Your task to perform on an android device: When is my next appointment? Image 0: 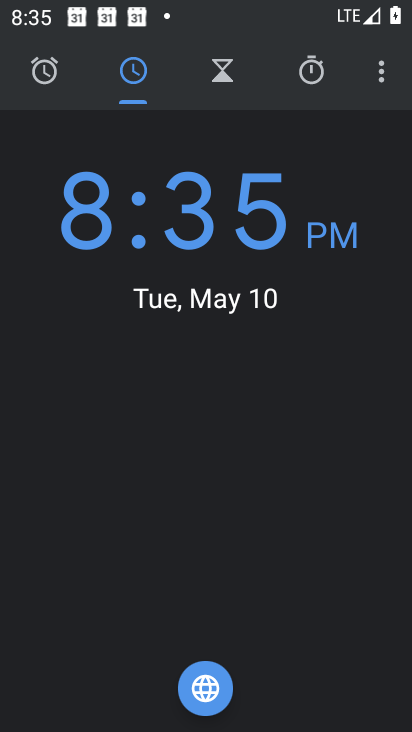
Step 0: press home button
Your task to perform on an android device: When is my next appointment? Image 1: 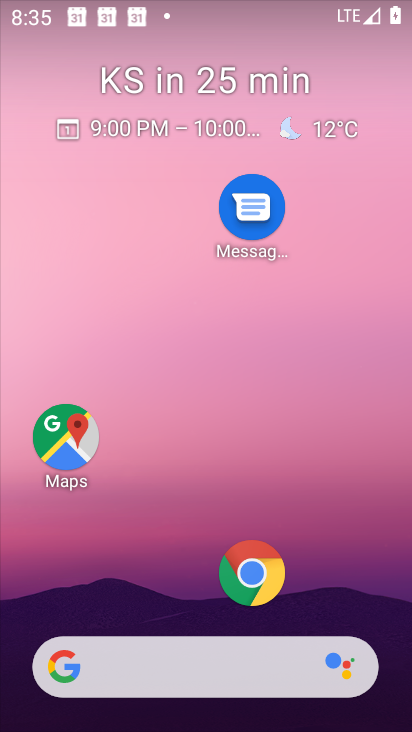
Step 1: drag from (180, 590) to (241, 35)
Your task to perform on an android device: When is my next appointment? Image 2: 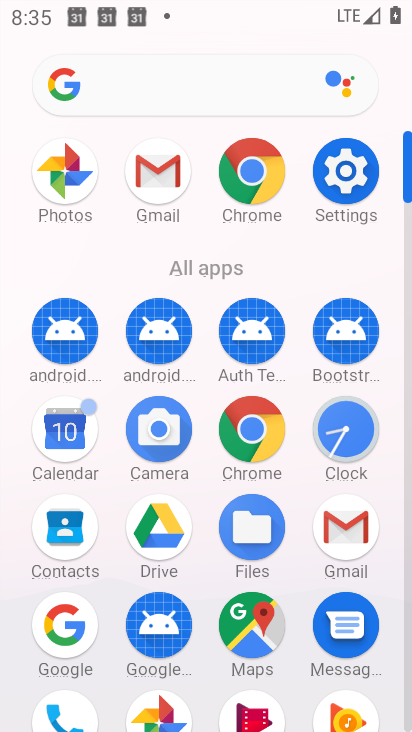
Step 2: click (68, 433)
Your task to perform on an android device: When is my next appointment? Image 3: 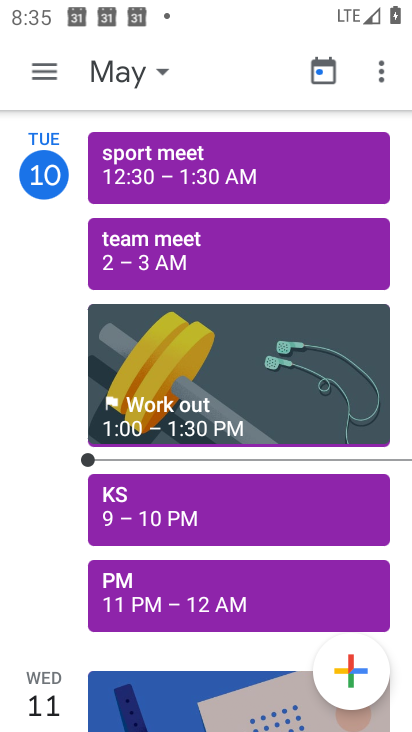
Step 3: click (166, 68)
Your task to perform on an android device: When is my next appointment? Image 4: 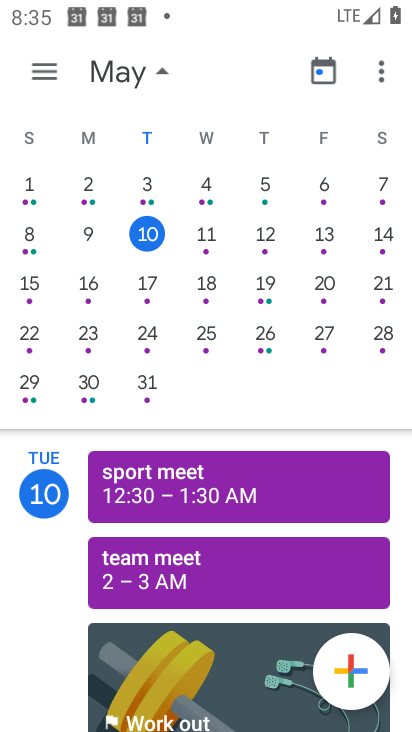
Step 4: click (263, 238)
Your task to perform on an android device: When is my next appointment? Image 5: 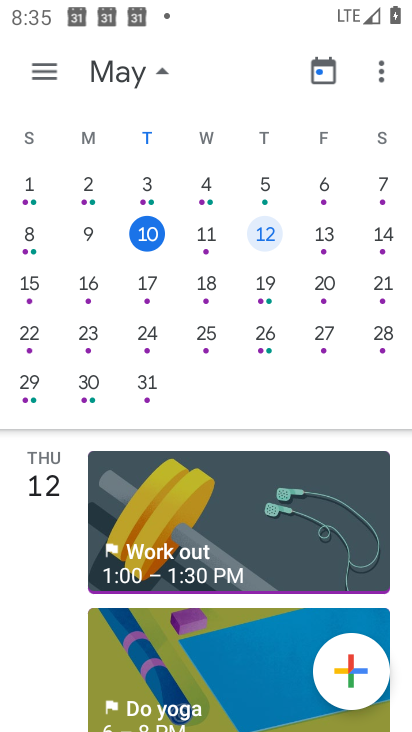
Step 5: task complete